Your task to perform on an android device: turn pop-ups on in chrome Image 0: 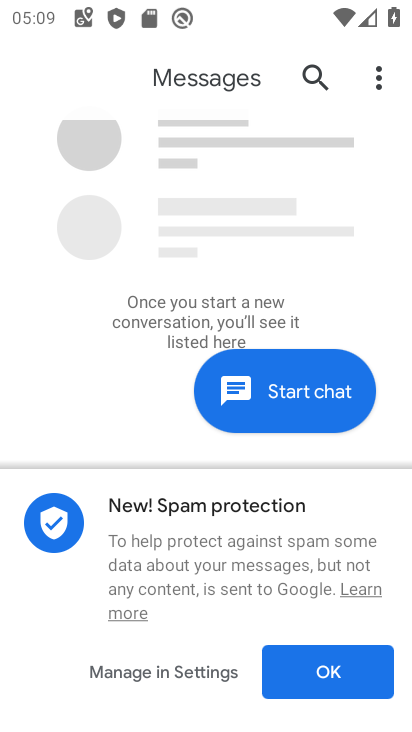
Step 0: press back button
Your task to perform on an android device: turn pop-ups on in chrome Image 1: 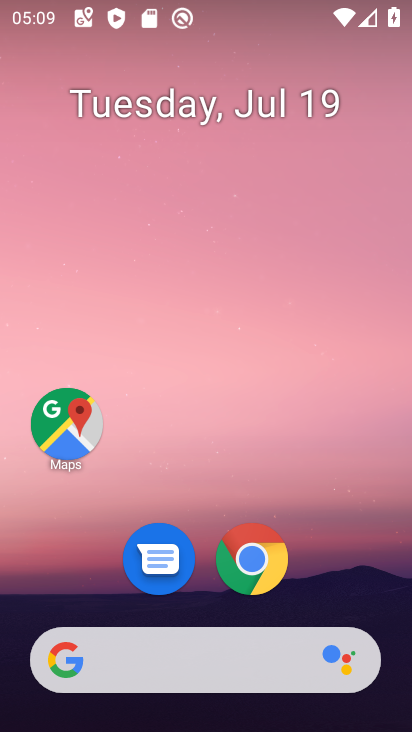
Step 1: click (250, 547)
Your task to perform on an android device: turn pop-ups on in chrome Image 2: 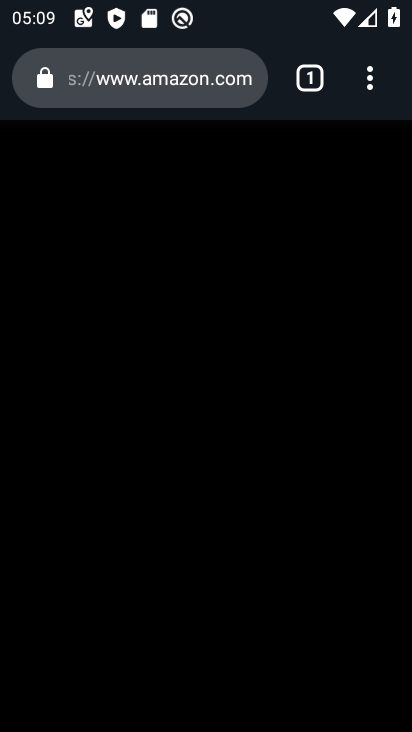
Step 2: drag from (367, 73) to (80, 595)
Your task to perform on an android device: turn pop-ups on in chrome Image 3: 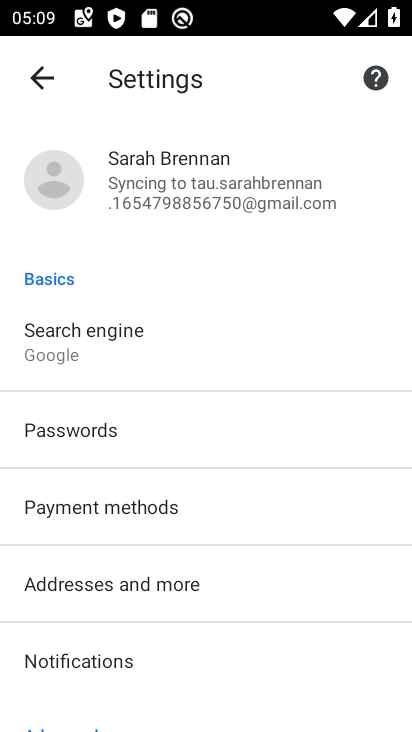
Step 3: drag from (107, 630) to (221, 96)
Your task to perform on an android device: turn pop-ups on in chrome Image 4: 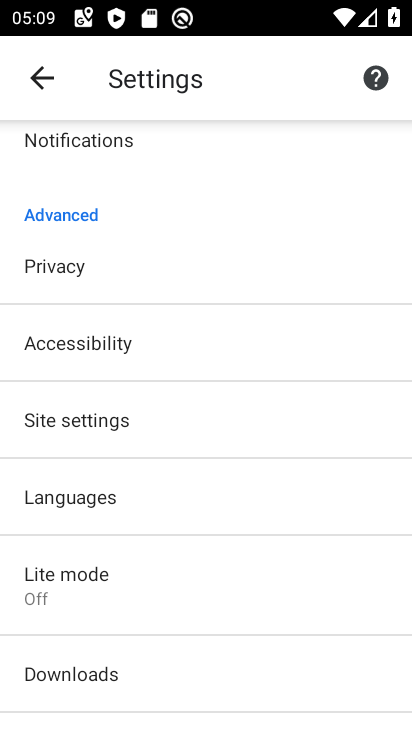
Step 4: click (119, 422)
Your task to perform on an android device: turn pop-ups on in chrome Image 5: 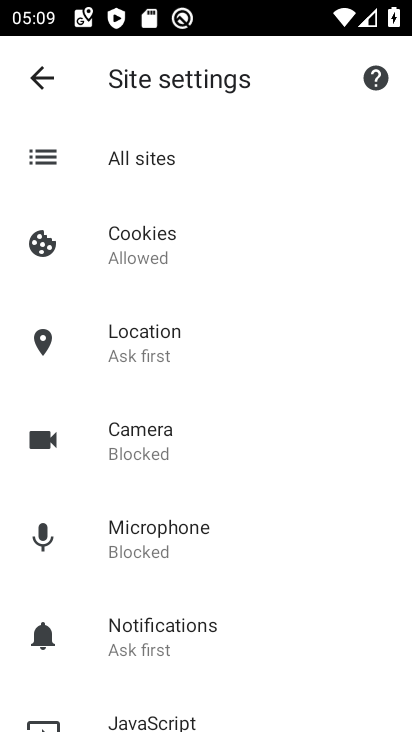
Step 5: drag from (170, 627) to (273, 203)
Your task to perform on an android device: turn pop-ups on in chrome Image 6: 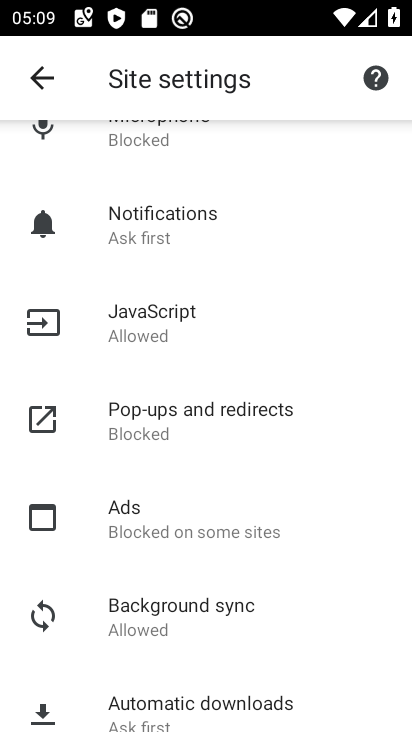
Step 6: click (140, 421)
Your task to perform on an android device: turn pop-ups on in chrome Image 7: 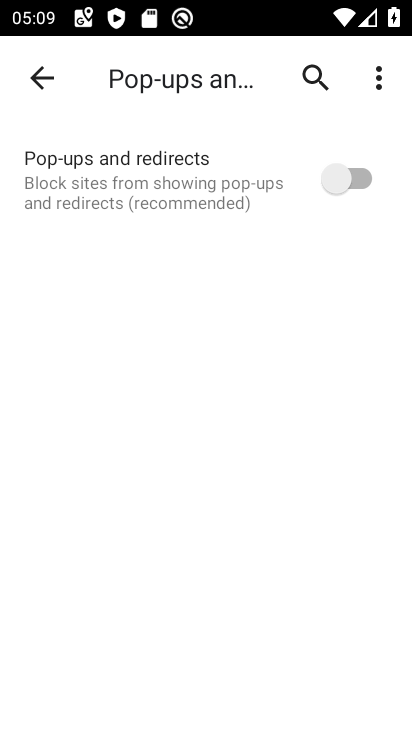
Step 7: click (340, 183)
Your task to perform on an android device: turn pop-ups on in chrome Image 8: 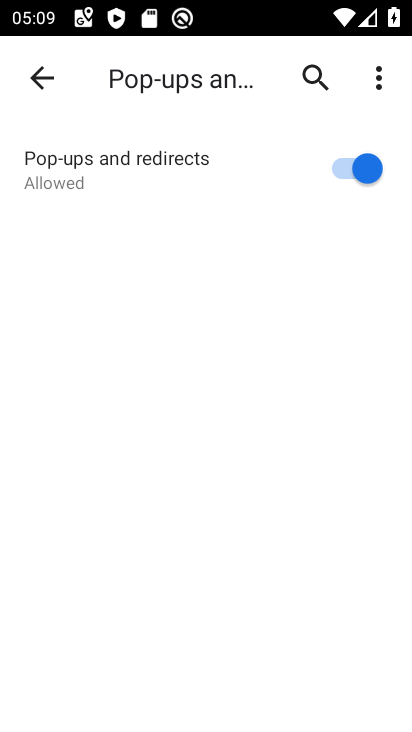
Step 8: task complete